Your task to perform on an android device: open chrome privacy settings Image 0: 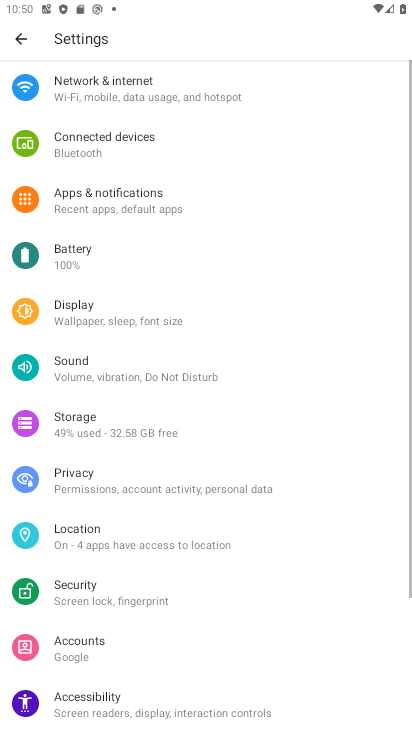
Step 0: press home button
Your task to perform on an android device: open chrome privacy settings Image 1: 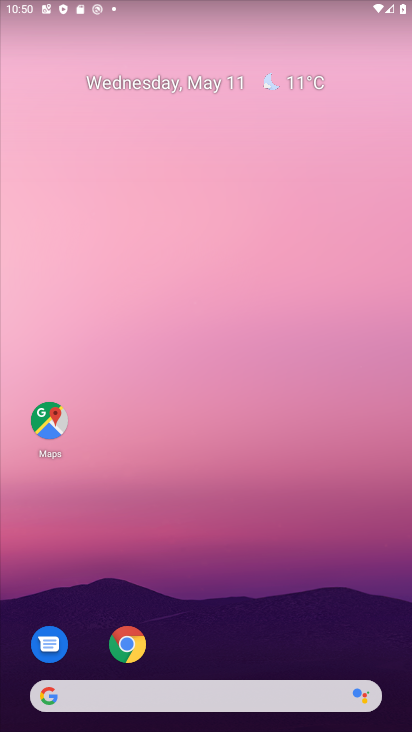
Step 1: click (127, 642)
Your task to perform on an android device: open chrome privacy settings Image 2: 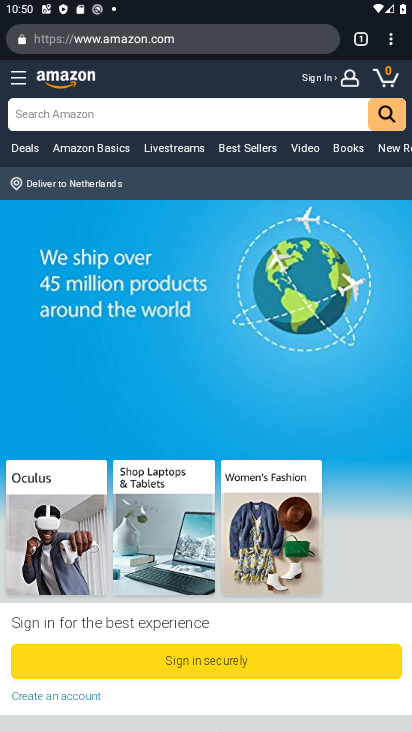
Step 2: click (389, 39)
Your task to perform on an android device: open chrome privacy settings Image 3: 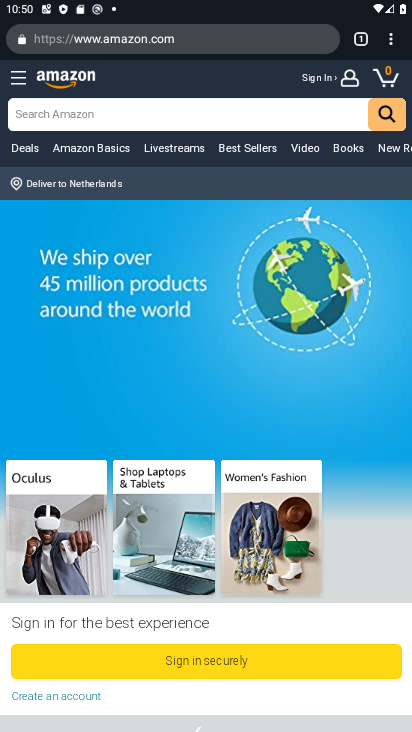
Step 3: click (395, 33)
Your task to perform on an android device: open chrome privacy settings Image 4: 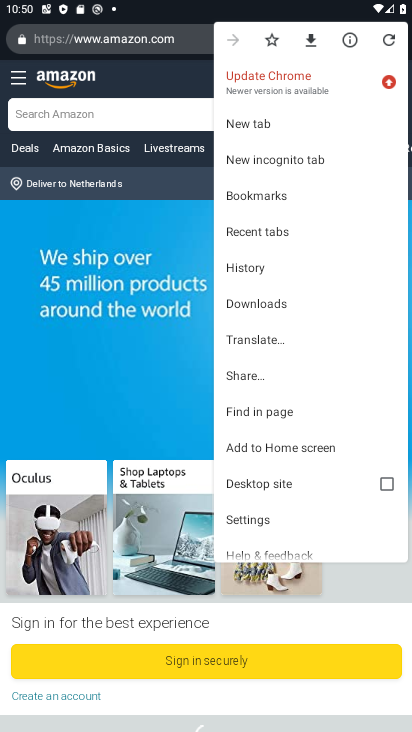
Step 4: click (268, 516)
Your task to perform on an android device: open chrome privacy settings Image 5: 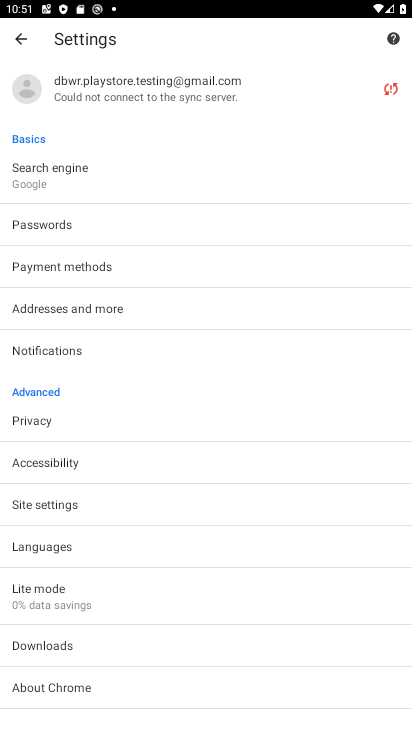
Step 5: click (73, 416)
Your task to perform on an android device: open chrome privacy settings Image 6: 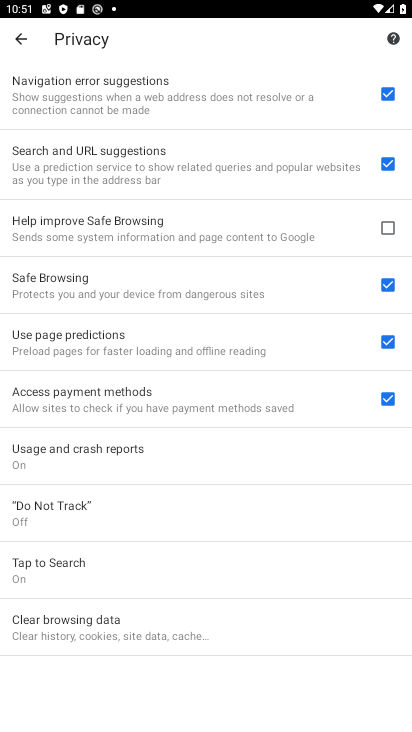
Step 6: task complete